Your task to perform on an android device: Search for a storage ottoman in the living room Image 0: 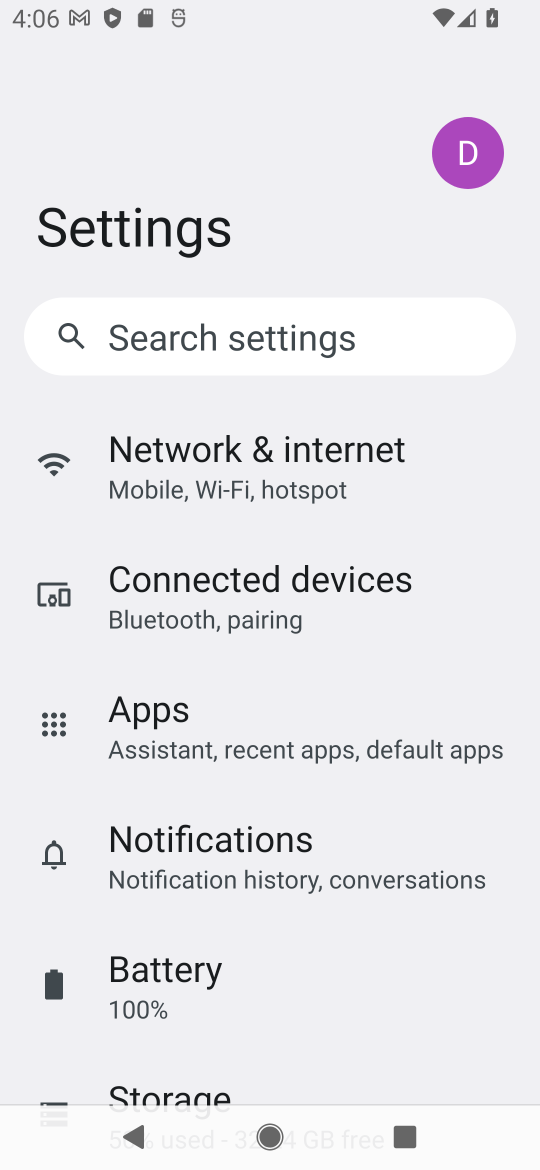
Step 0: press home button
Your task to perform on an android device: Search for a storage ottoman in the living room Image 1: 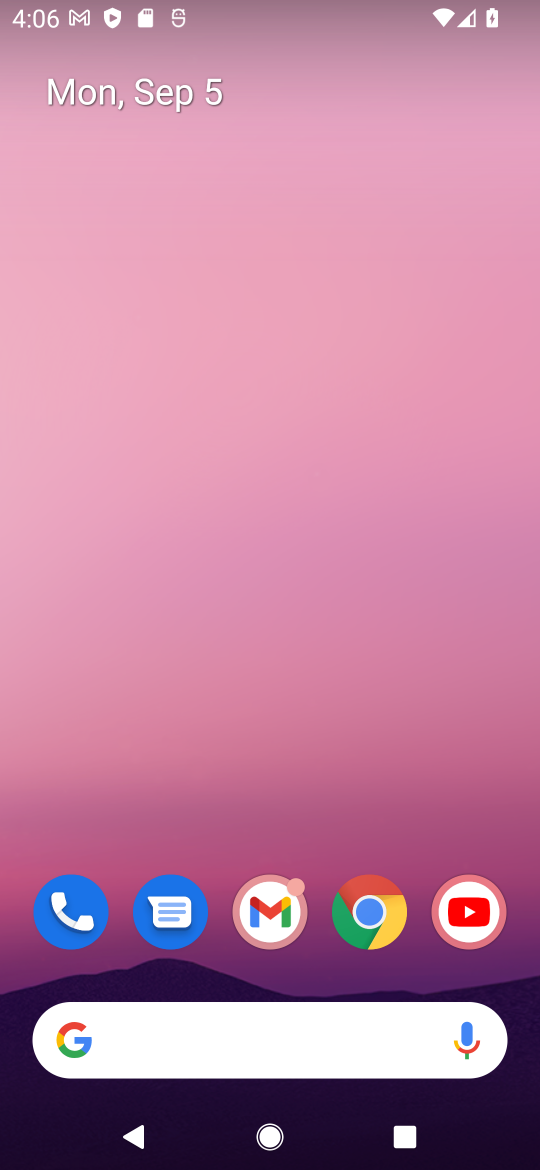
Step 1: click (379, 933)
Your task to perform on an android device: Search for a storage ottoman in the living room Image 2: 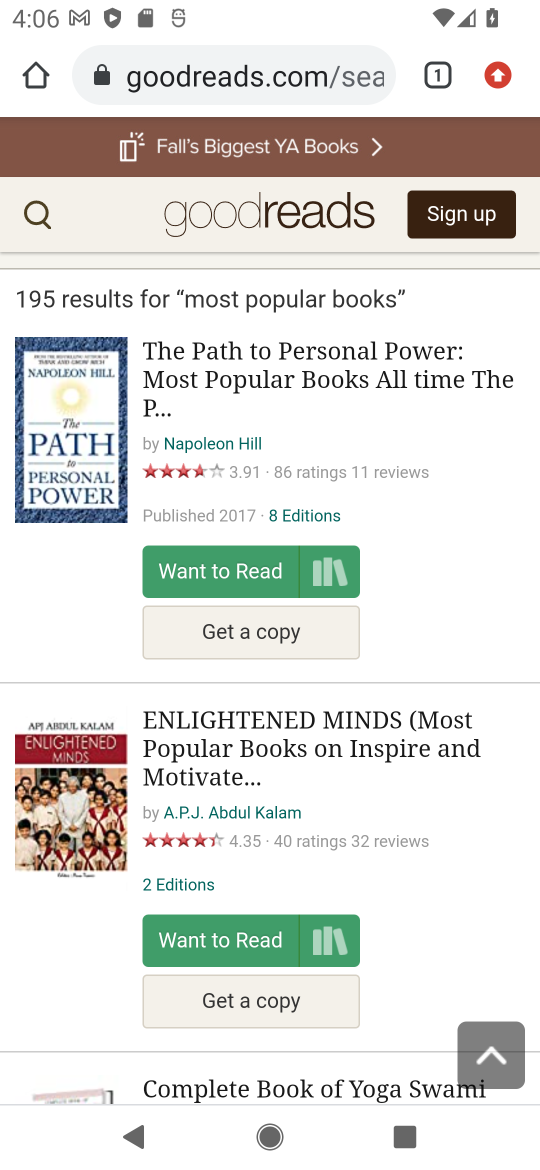
Step 2: click (299, 72)
Your task to perform on an android device: Search for a storage ottoman in the living room Image 3: 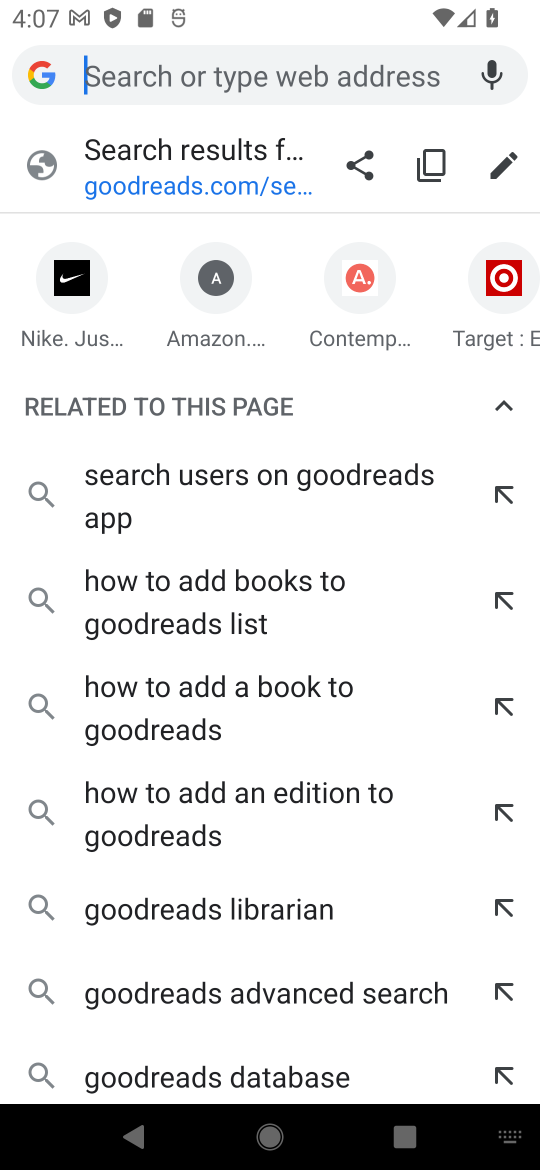
Step 3: type "a storage ottoman in the living room"
Your task to perform on an android device: Search for a storage ottoman in the living room Image 4: 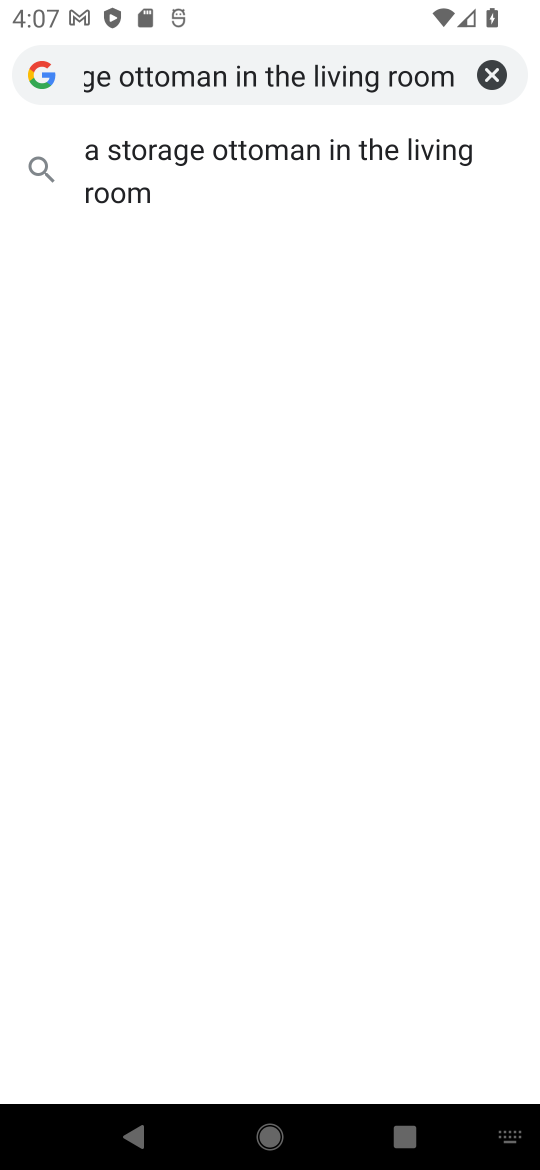
Step 4: press enter
Your task to perform on an android device: Search for a storage ottoman in the living room Image 5: 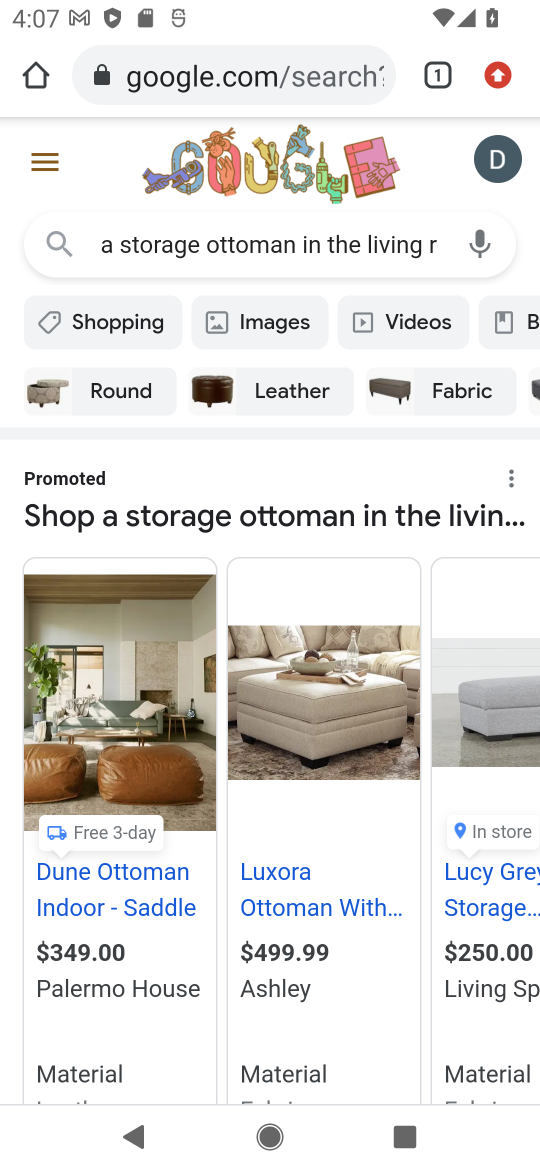
Step 5: drag from (299, 929) to (297, 569)
Your task to perform on an android device: Search for a storage ottoman in the living room Image 6: 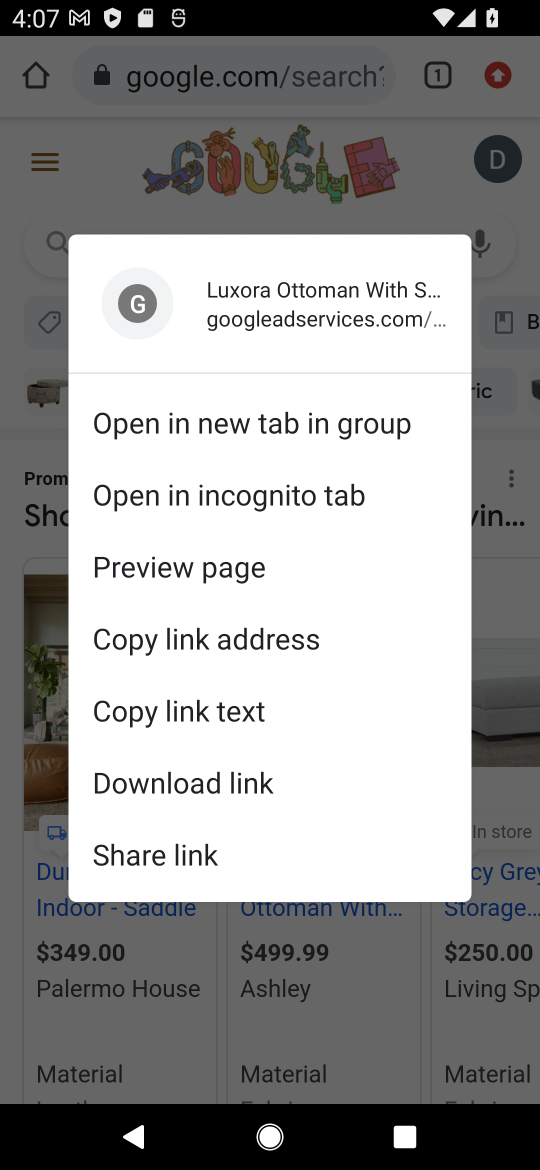
Step 6: click (520, 672)
Your task to perform on an android device: Search for a storage ottoman in the living room Image 7: 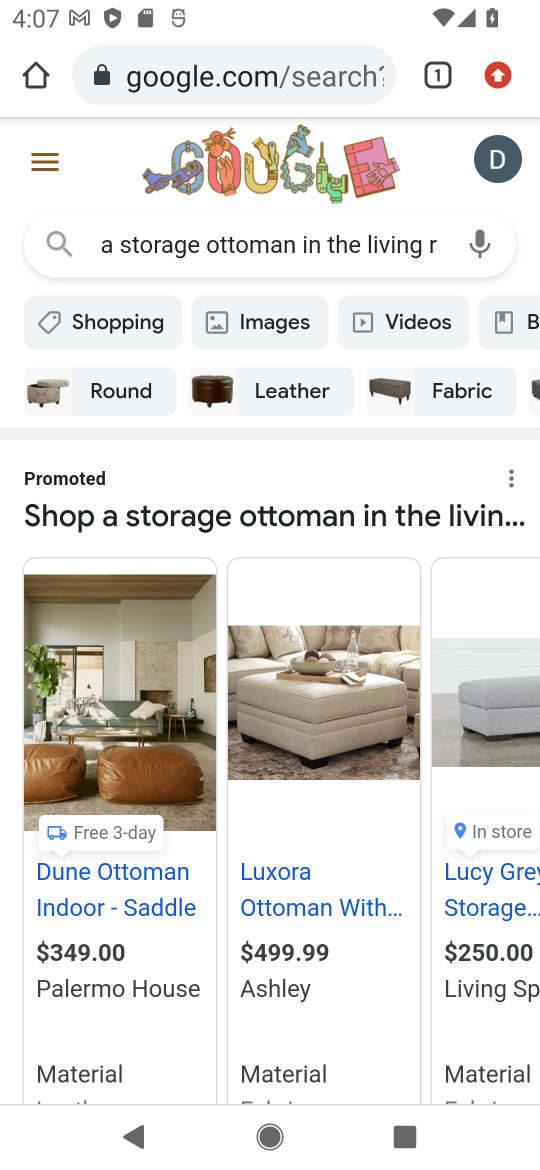
Step 7: drag from (329, 977) to (308, 255)
Your task to perform on an android device: Search for a storage ottoman in the living room Image 8: 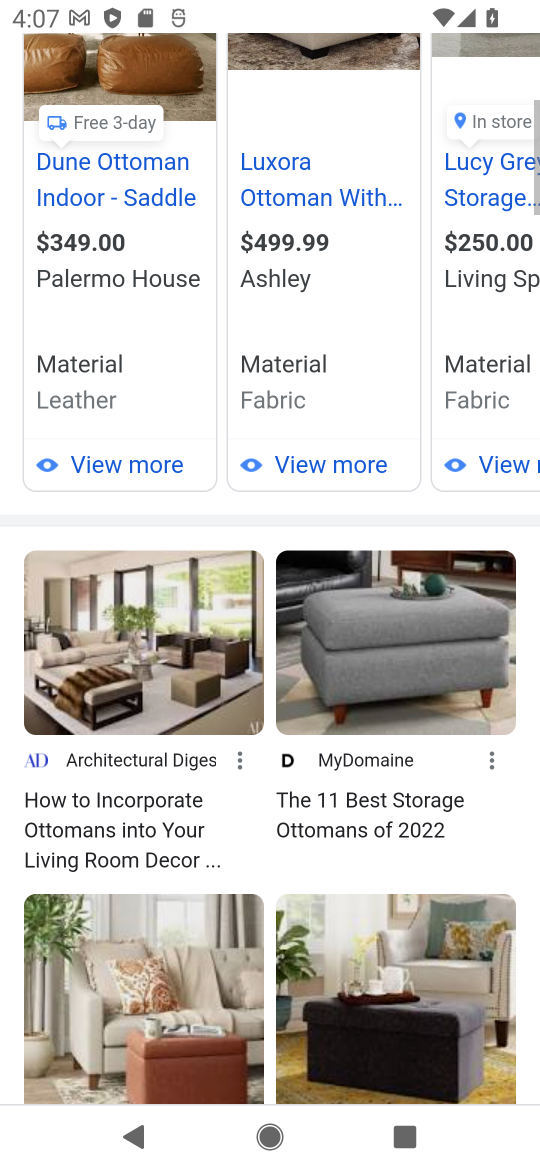
Step 8: drag from (263, 863) to (269, 479)
Your task to perform on an android device: Search for a storage ottoman in the living room Image 9: 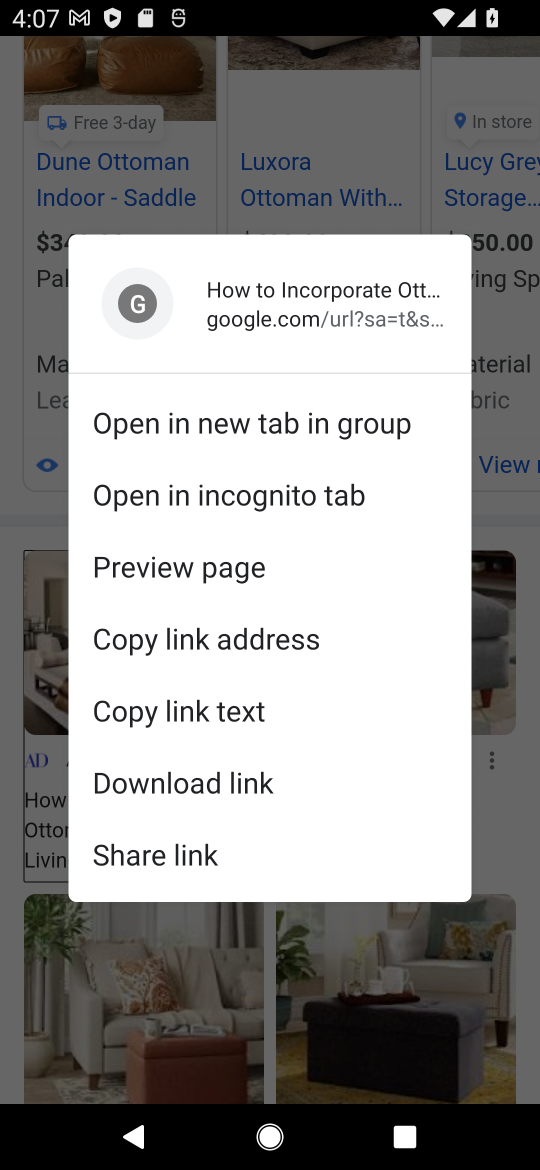
Step 9: click (511, 559)
Your task to perform on an android device: Search for a storage ottoman in the living room Image 10: 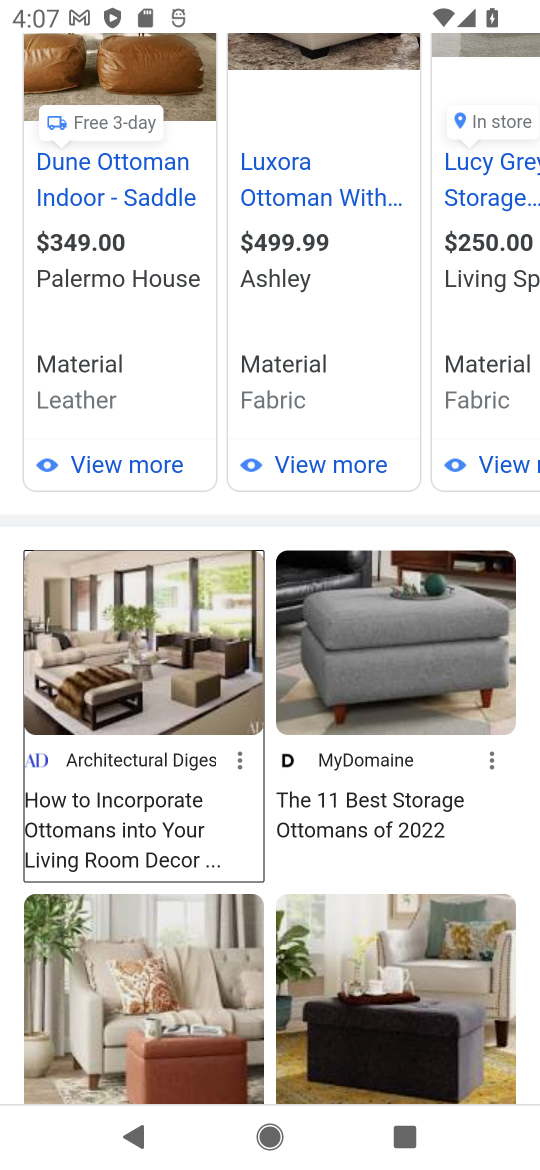
Step 10: click (342, 853)
Your task to perform on an android device: Search for a storage ottoman in the living room Image 11: 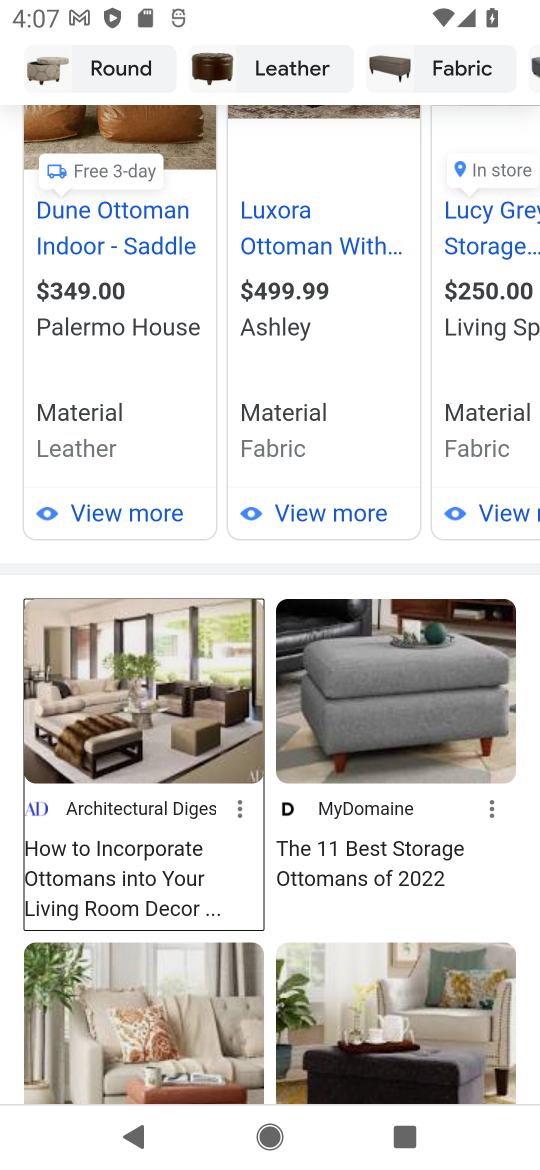
Step 11: click (247, 521)
Your task to perform on an android device: Search for a storage ottoman in the living room Image 12: 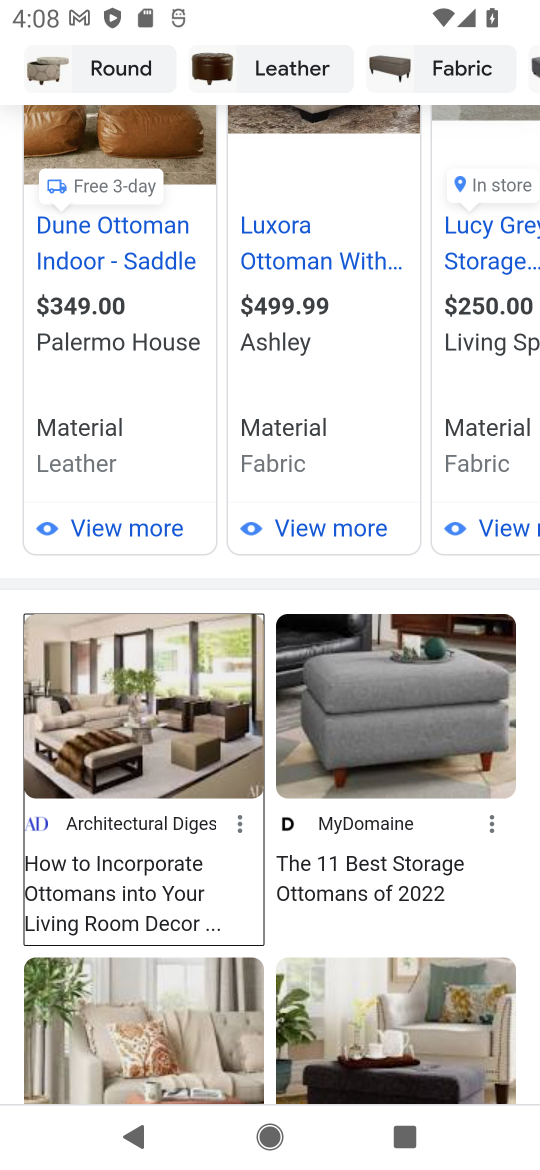
Step 12: drag from (275, 378) to (313, 795)
Your task to perform on an android device: Search for a storage ottoman in the living room Image 13: 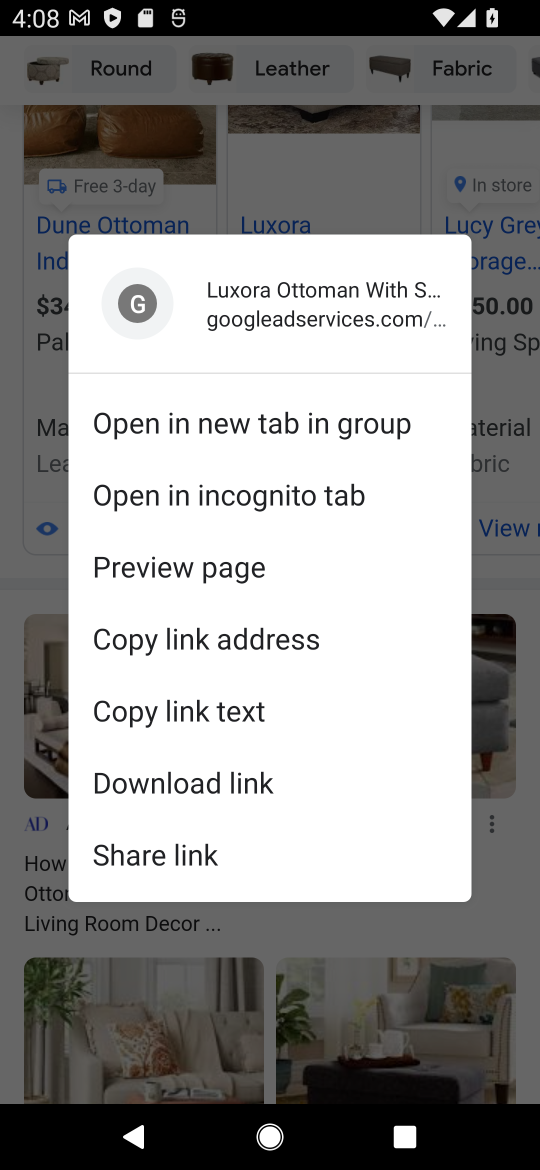
Step 13: click (495, 506)
Your task to perform on an android device: Search for a storage ottoman in the living room Image 14: 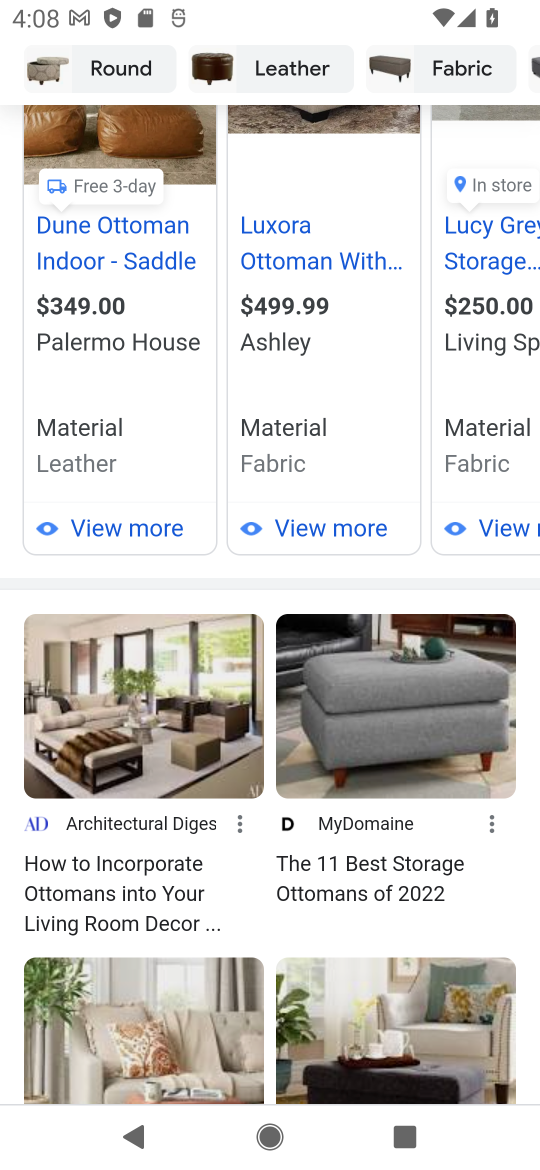
Step 14: task complete